Your task to perform on an android device: add a label to a message in the gmail app Image 0: 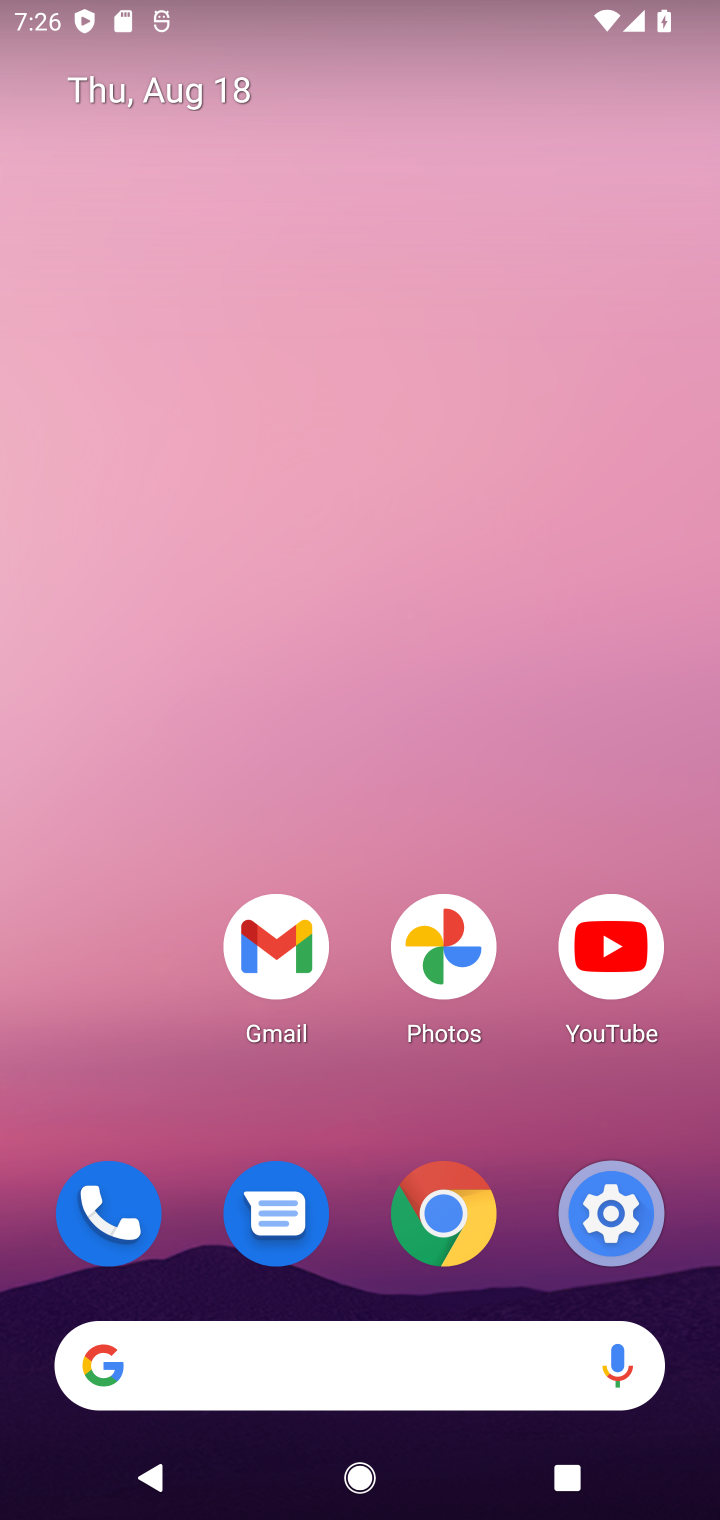
Step 0: click (258, 971)
Your task to perform on an android device: add a label to a message in the gmail app Image 1: 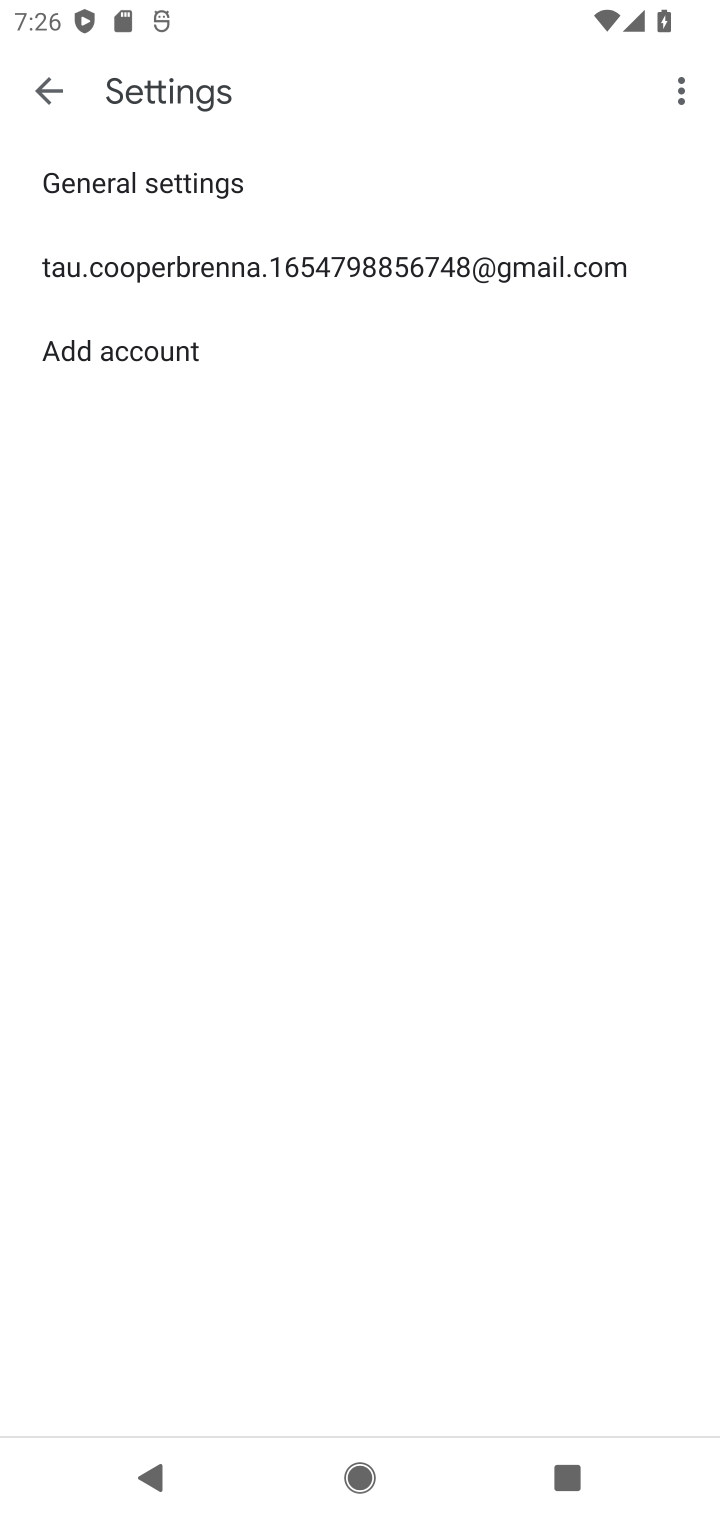
Step 1: task complete